Your task to perform on an android device: check battery use Image 0: 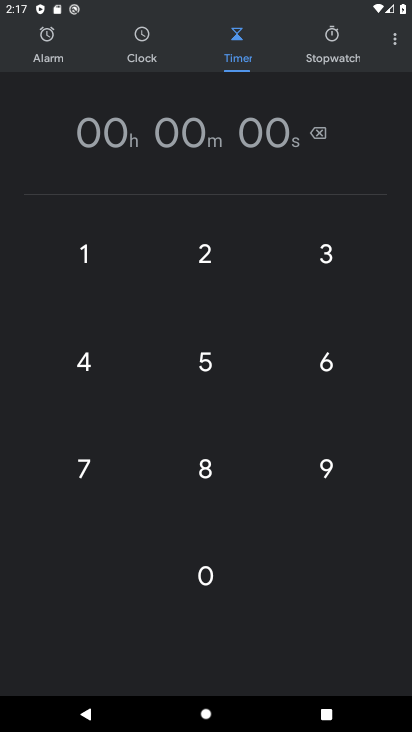
Step 0: press home button
Your task to perform on an android device: check battery use Image 1: 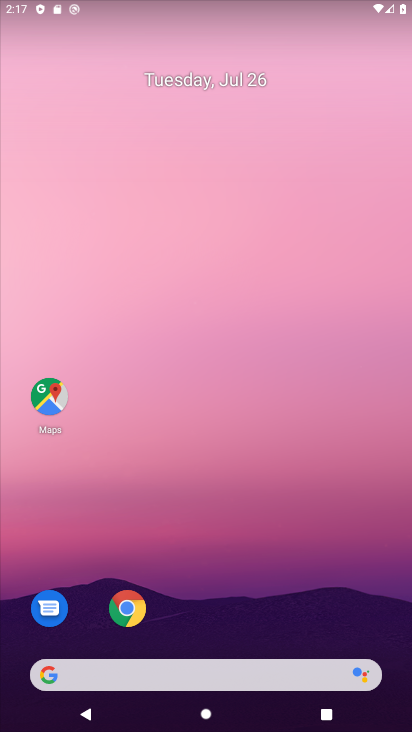
Step 1: drag from (258, 538) to (295, 107)
Your task to perform on an android device: check battery use Image 2: 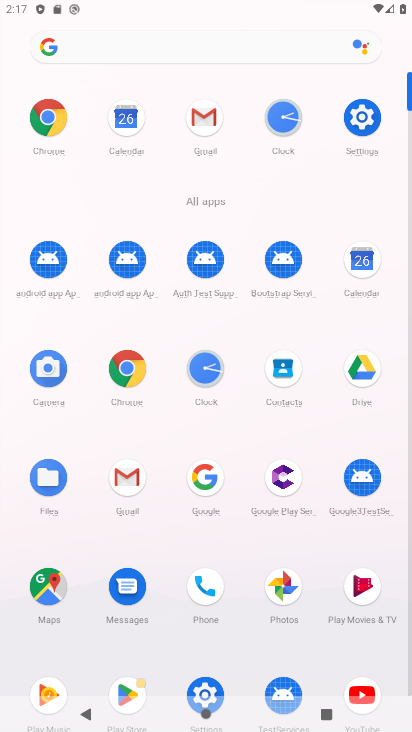
Step 2: click (357, 125)
Your task to perform on an android device: check battery use Image 3: 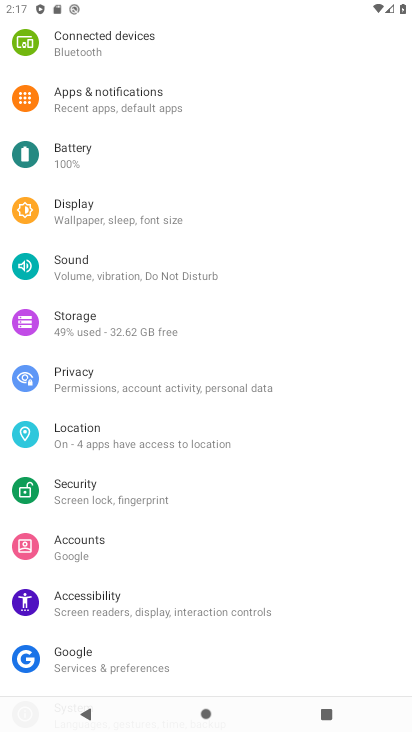
Step 3: click (75, 166)
Your task to perform on an android device: check battery use Image 4: 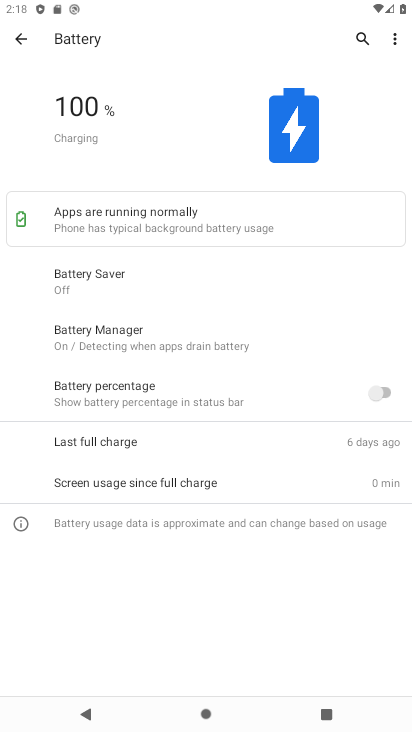
Step 4: task complete